Your task to perform on an android device: Go to wifi settings Image 0: 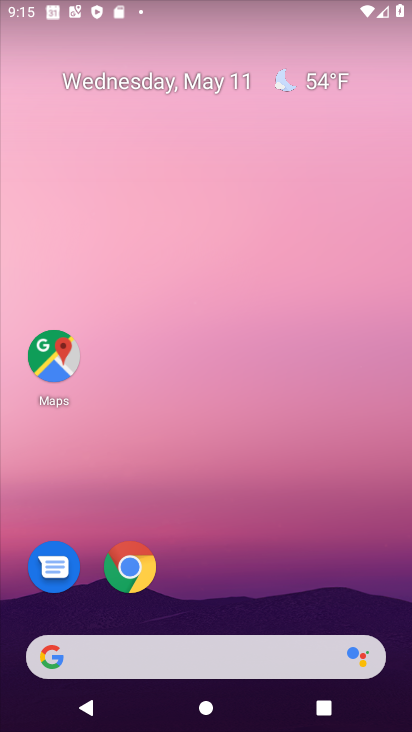
Step 0: drag from (218, 602) to (235, 60)
Your task to perform on an android device: Go to wifi settings Image 1: 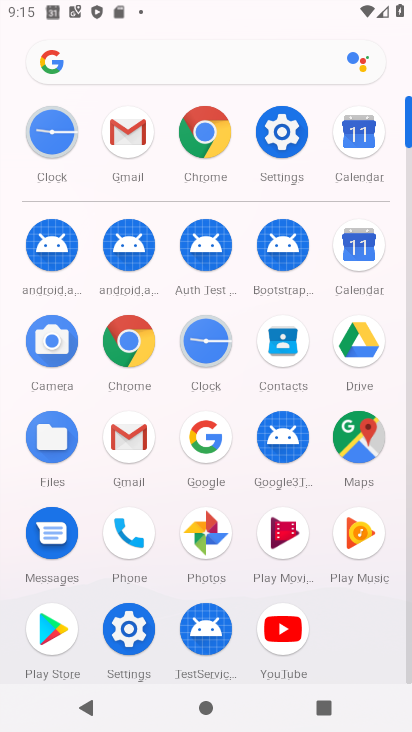
Step 1: click (277, 156)
Your task to perform on an android device: Go to wifi settings Image 2: 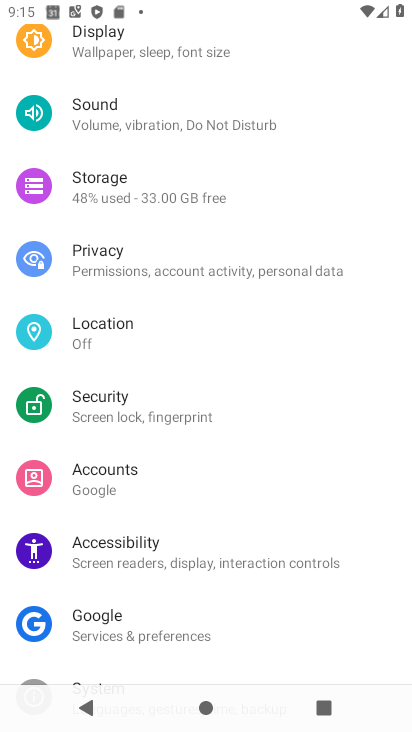
Step 2: drag from (215, 165) to (195, 612)
Your task to perform on an android device: Go to wifi settings Image 3: 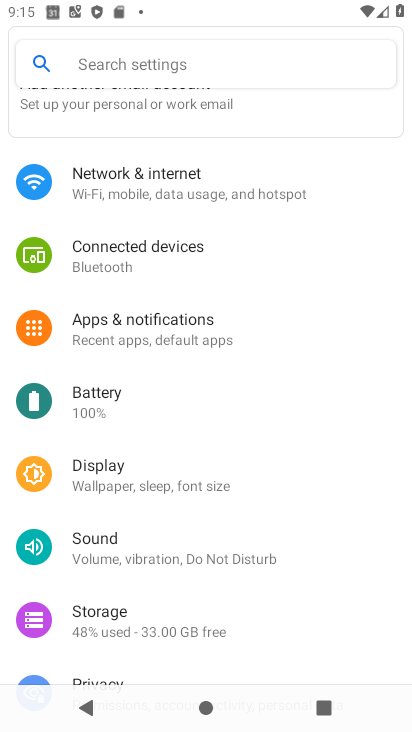
Step 3: click (161, 200)
Your task to perform on an android device: Go to wifi settings Image 4: 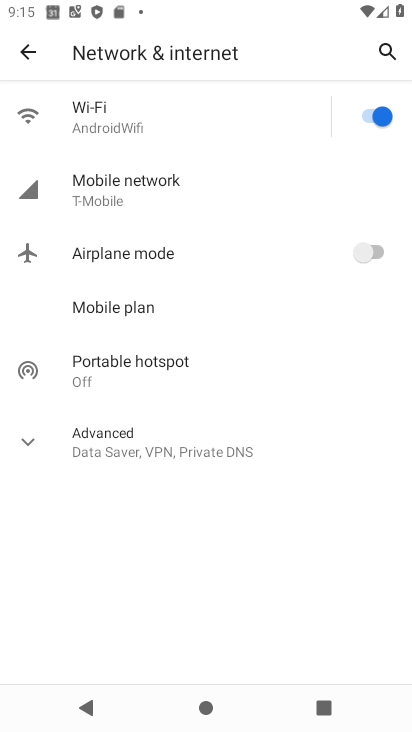
Step 4: click (147, 130)
Your task to perform on an android device: Go to wifi settings Image 5: 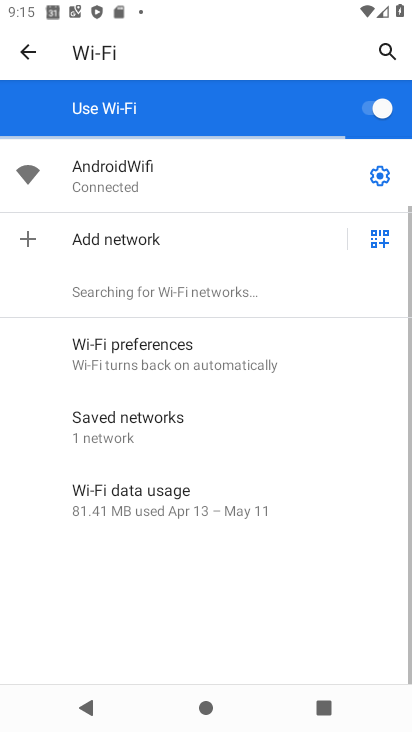
Step 5: task complete